Your task to perform on an android device: turn on airplane mode Image 0: 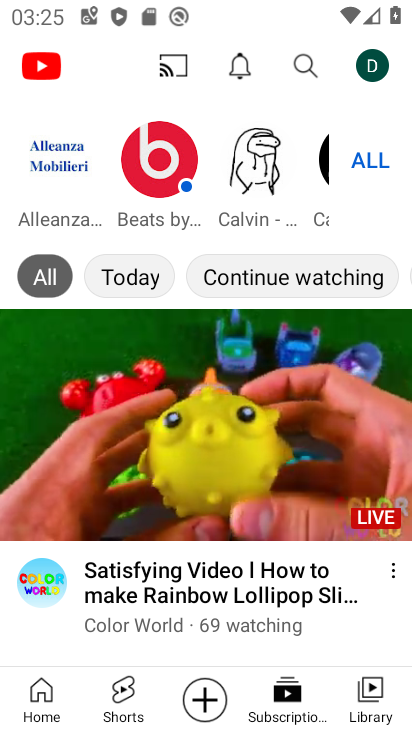
Step 0: press home button
Your task to perform on an android device: turn on airplane mode Image 1: 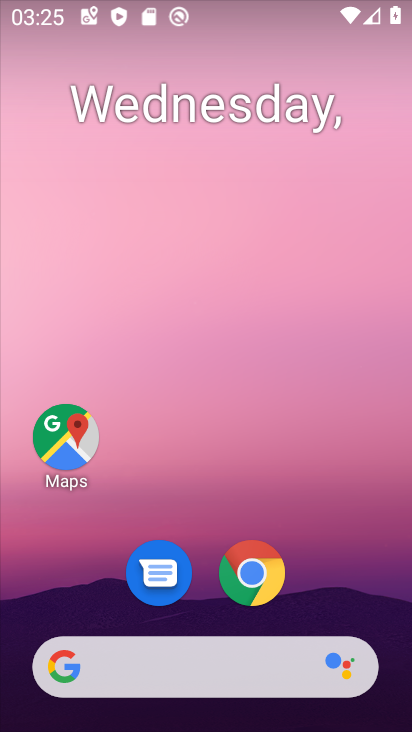
Step 1: drag from (368, 558) to (323, 81)
Your task to perform on an android device: turn on airplane mode Image 2: 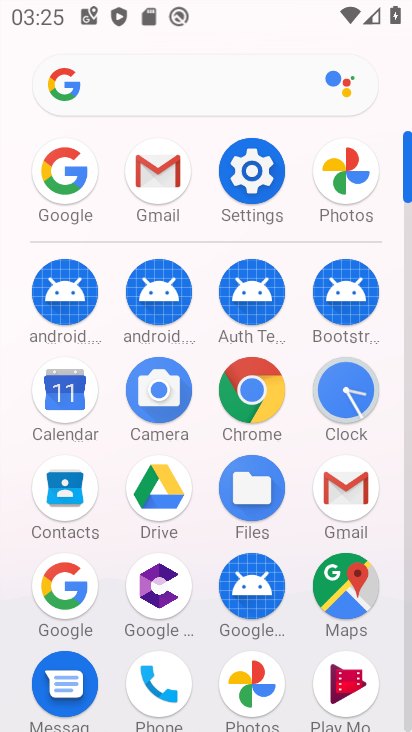
Step 2: click (249, 169)
Your task to perform on an android device: turn on airplane mode Image 3: 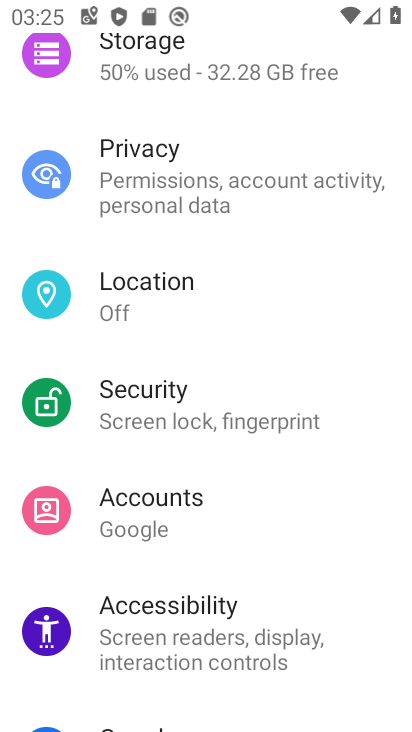
Step 3: drag from (255, 207) to (262, 326)
Your task to perform on an android device: turn on airplane mode Image 4: 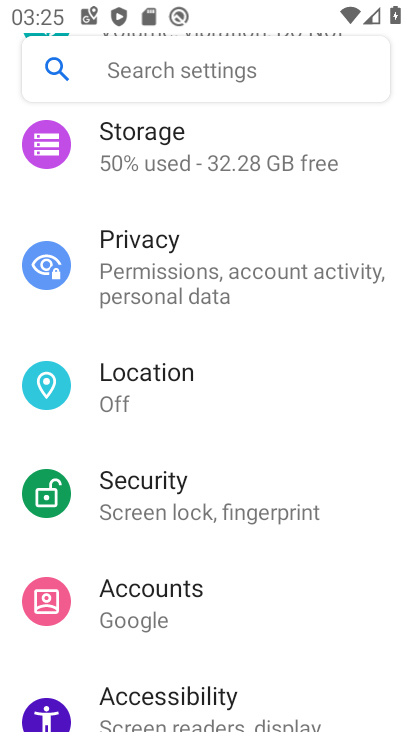
Step 4: drag from (246, 155) to (268, 379)
Your task to perform on an android device: turn on airplane mode Image 5: 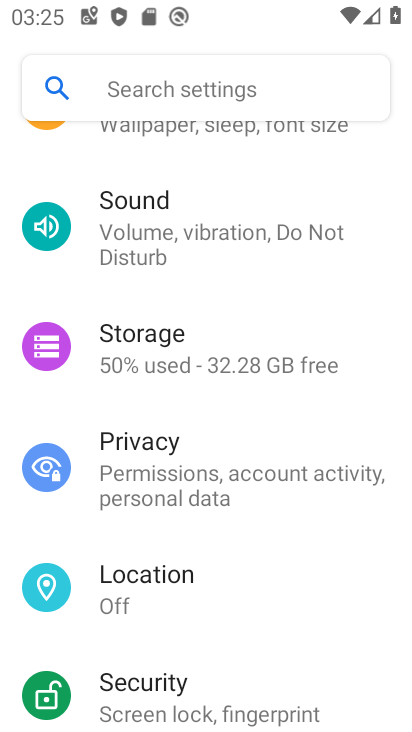
Step 5: drag from (238, 173) to (286, 402)
Your task to perform on an android device: turn on airplane mode Image 6: 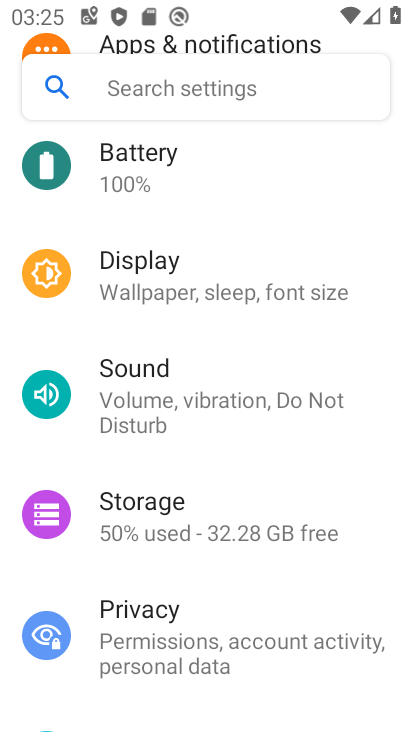
Step 6: drag from (229, 185) to (242, 381)
Your task to perform on an android device: turn on airplane mode Image 7: 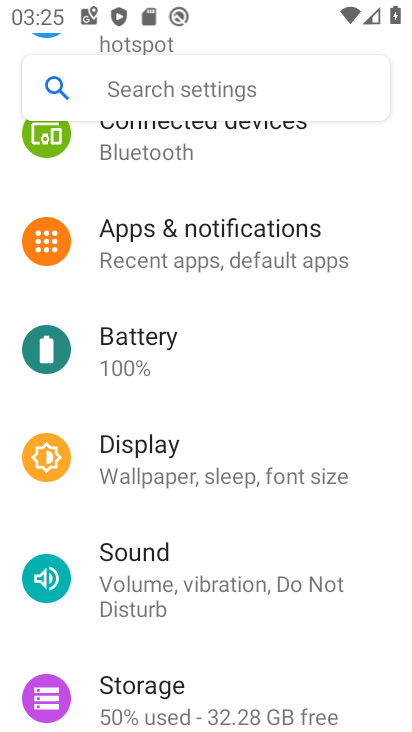
Step 7: drag from (199, 169) to (206, 463)
Your task to perform on an android device: turn on airplane mode Image 8: 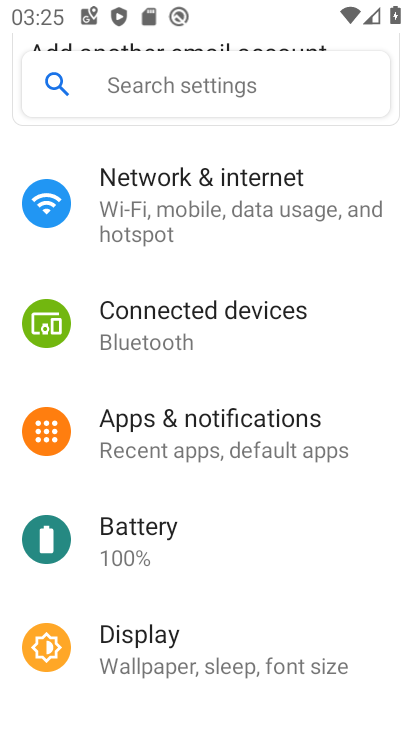
Step 8: click (169, 197)
Your task to perform on an android device: turn on airplane mode Image 9: 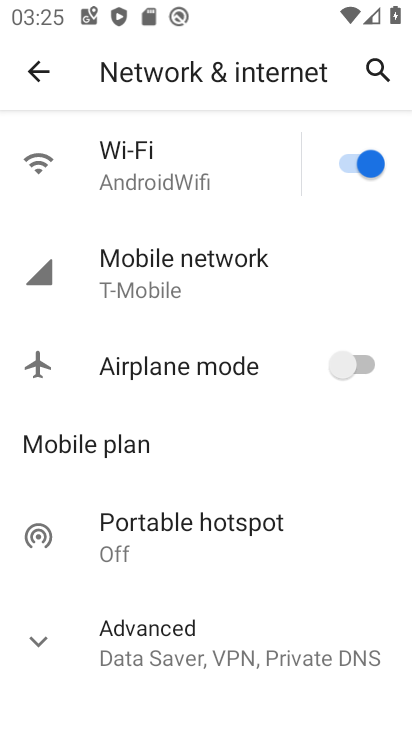
Step 9: click (350, 365)
Your task to perform on an android device: turn on airplane mode Image 10: 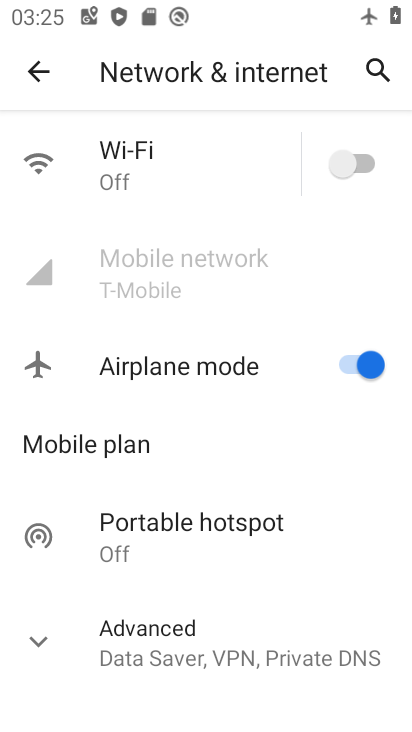
Step 10: task complete